Your task to perform on an android device: turn off location history Image 0: 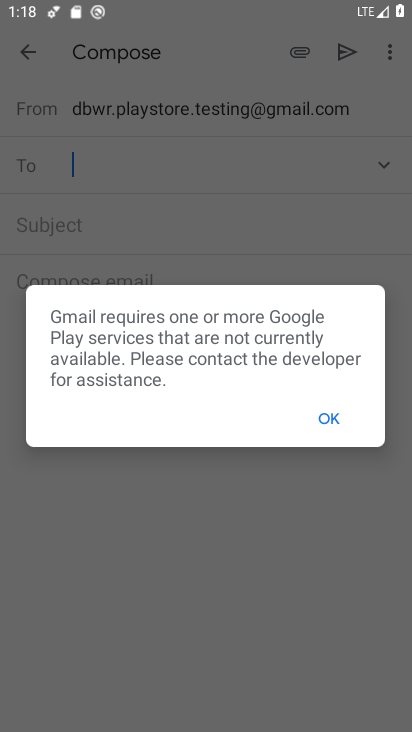
Step 0: press home button
Your task to perform on an android device: turn off location history Image 1: 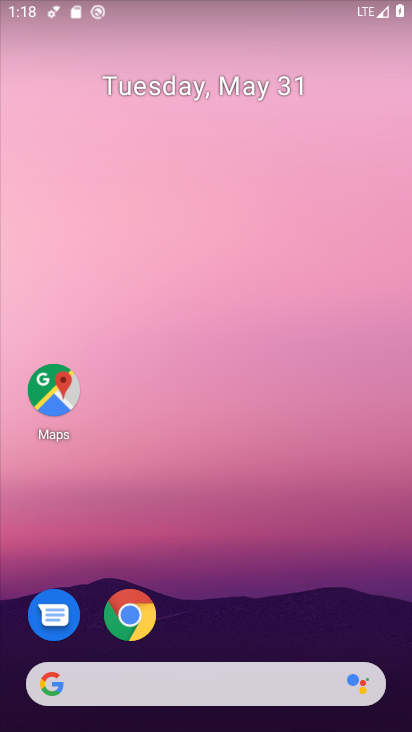
Step 1: drag from (200, 643) to (246, 10)
Your task to perform on an android device: turn off location history Image 2: 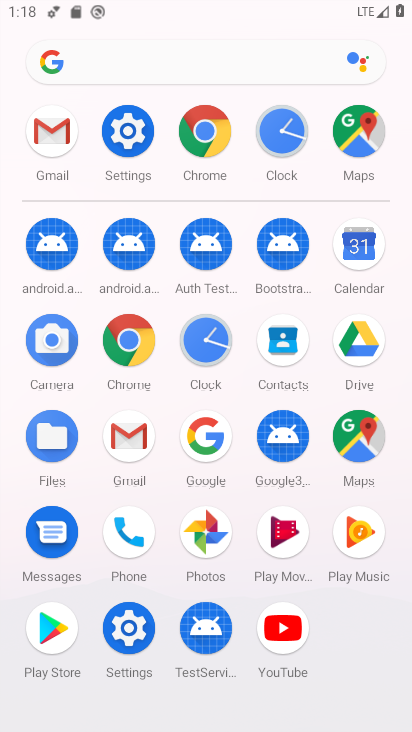
Step 2: click (127, 642)
Your task to perform on an android device: turn off location history Image 3: 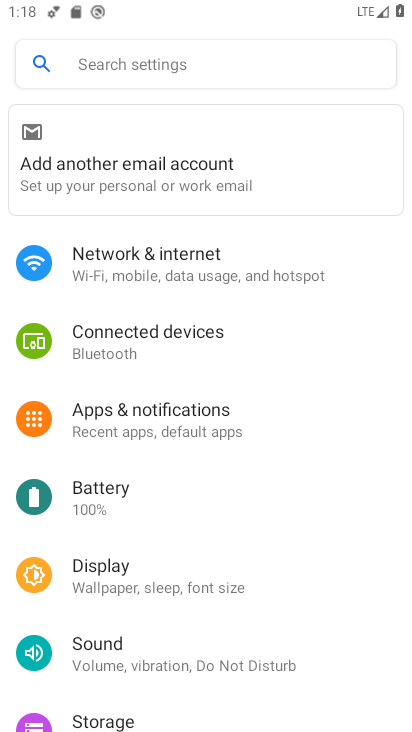
Step 3: drag from (222, 576) to (272, 186)
Your task to perform on an android device: turn off location history Image 4: 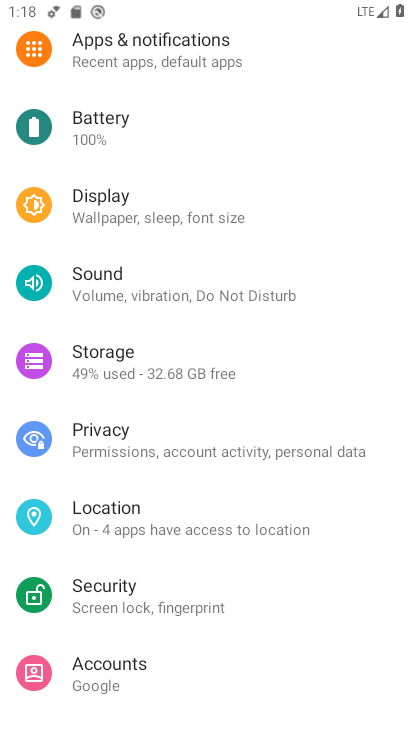
Step 4: click (156, 525)
Your task to perform on an android device: turn off location history Image 5: 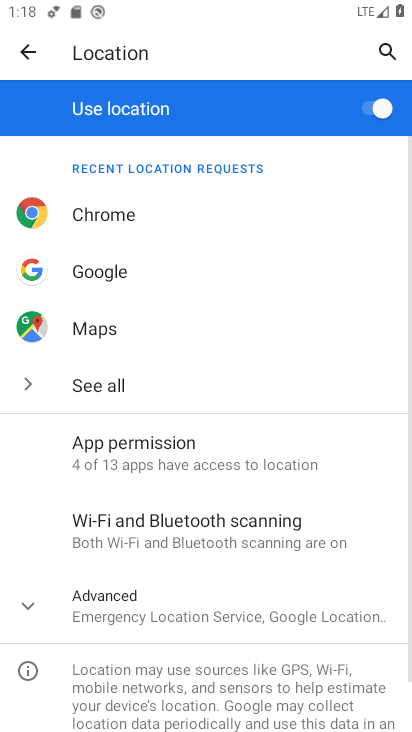
Step 5: click (112, 616)
Your task to perform on an android device: turn off location history Image 6: 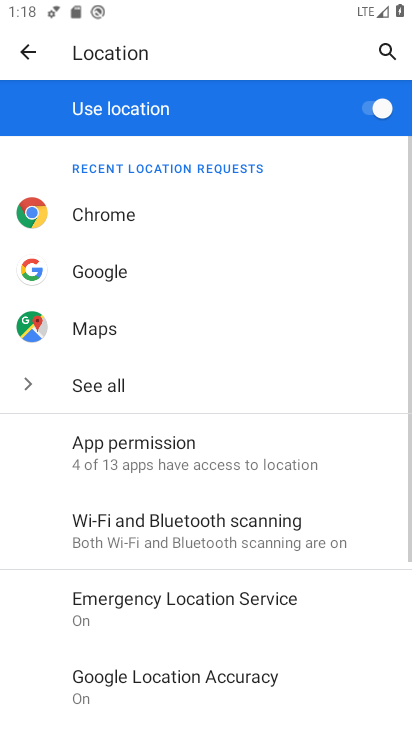
Step 6: drag from (168, 627) to (235, 316)
Your task to perform on an android device: turn off location history Image 7: 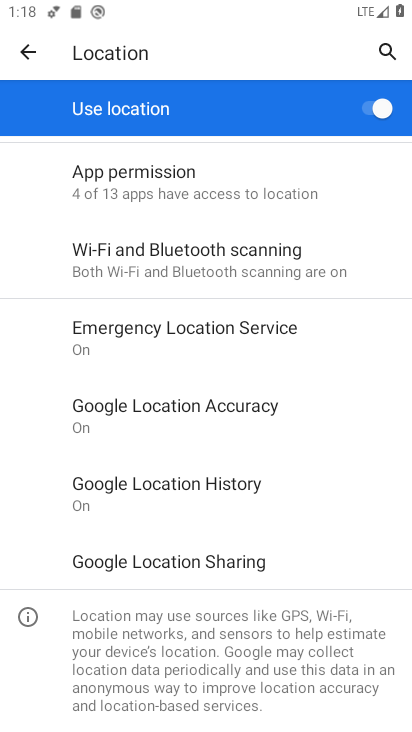
Step 7: click (219, 503)
Your task to perform on an android device: turn off location history Image 8: 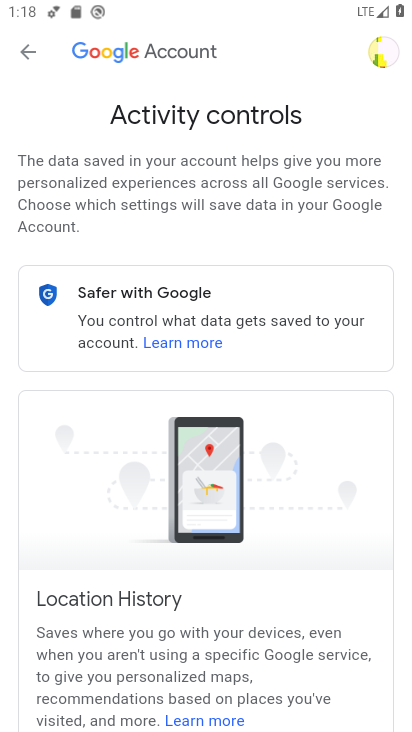
Step 8: drag from (226, 586) to (342, 29)
Your task to perform on an android device: turn off location history Image 9: 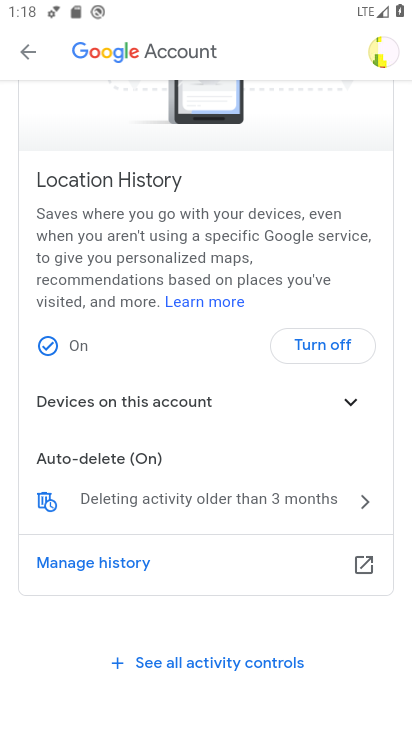
Step 9: click (328, 353)
Your task to perform on an android device: turn off location history Image 10: 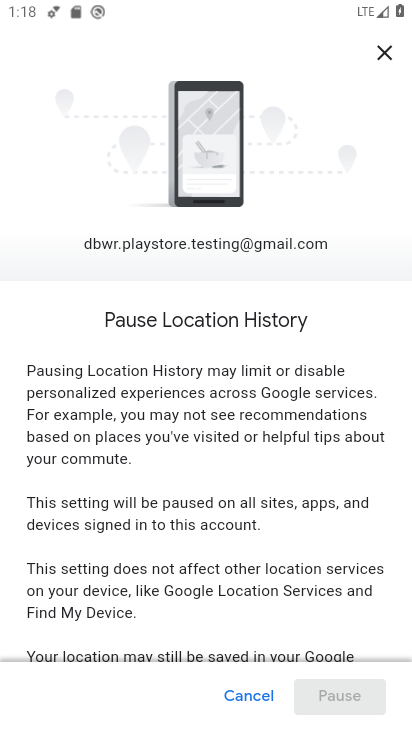
Step 10: drag from (173, 537) to (272, 77)
Your task to perform on an android device: turn off location history Image 11: 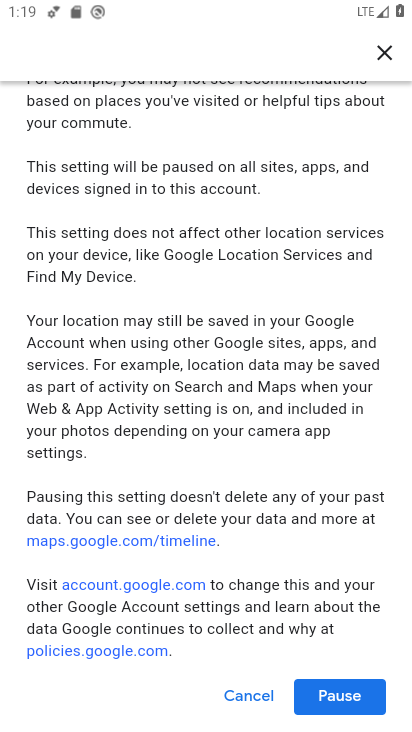
Step 11: drag from (153, 610) to (222, 234)
Your task to perform on an android device: turn off location history Image 12: 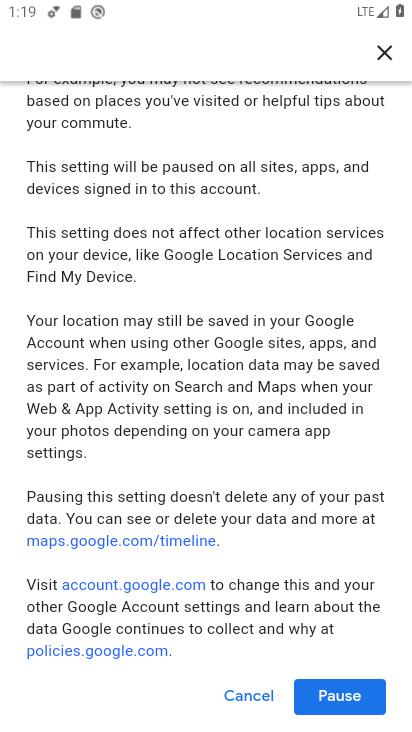
Step 12: click (355, 701)
Your task to perform on an android device: turn off location history Image 13: 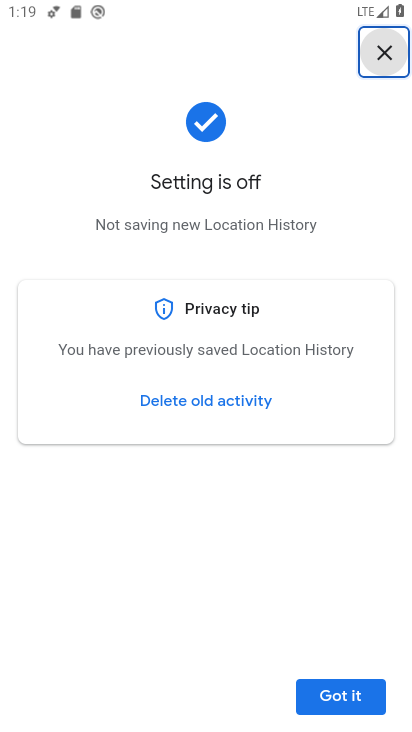
Step 13: click (356, 705)
Your task to perform on an android device: turn off location history Image 14: 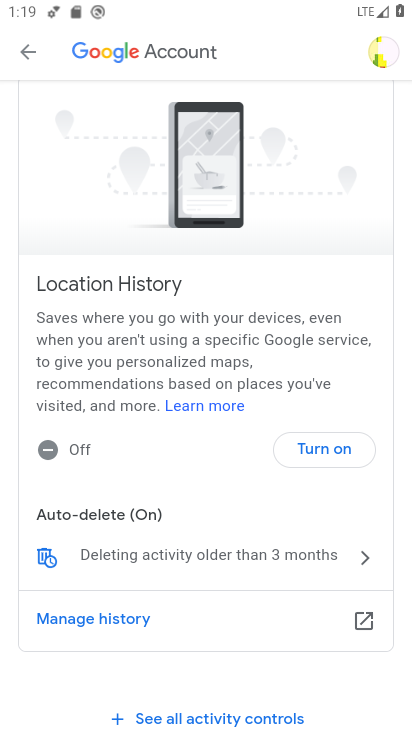
Step 14: task complete